Your task to perform on an android device: Open the stopwatch Image 0: 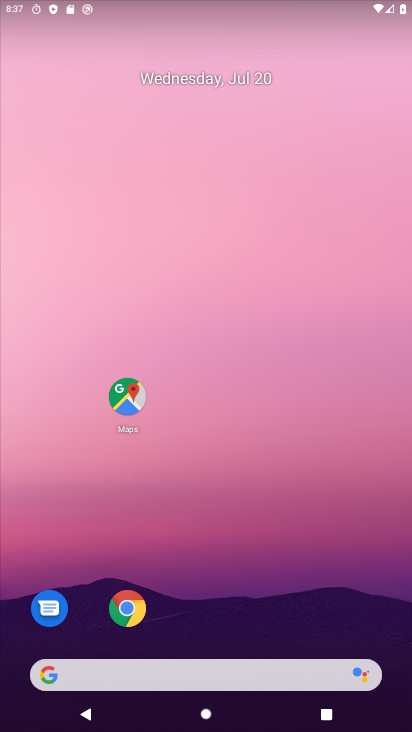
Step 0: drag from (254, 449) to (264, 75)
Your task to perform on an android device: Open the stopwatch Image 1: 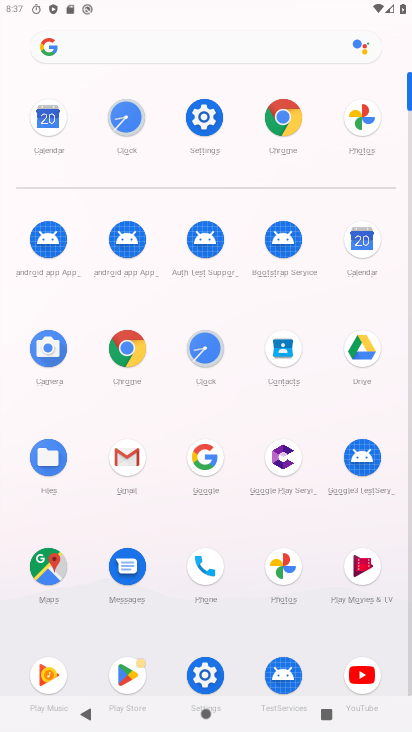
Step 1: click (209, 362)
Your task to perform on an android device: Open the stopwatch Image 2: 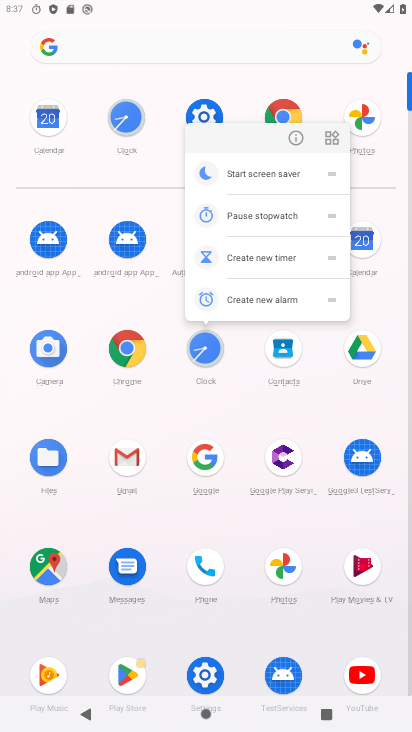
Step 2: click (209, 361)
Your task to perform on an android device: Open the stopwatch Image 3: 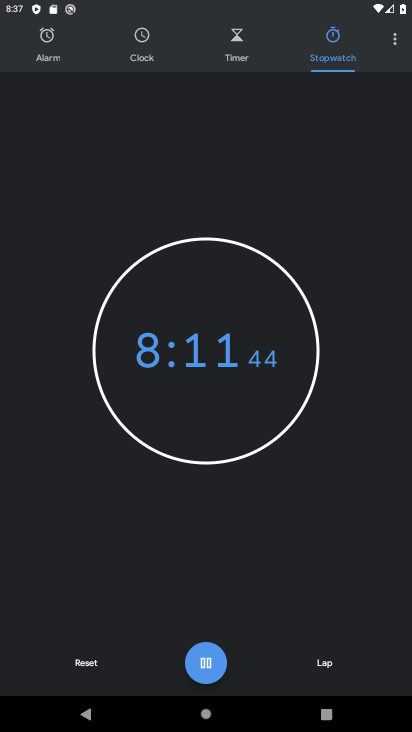
Step 3: click (214, 667)
Your task to perform on an android device: Open the stopwatch Image 4: 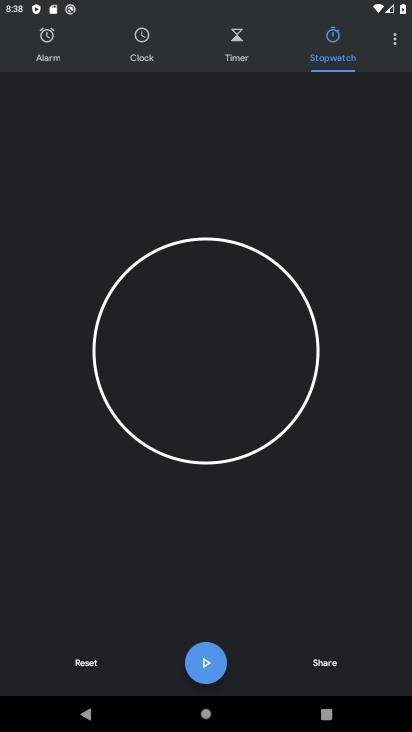
Step 4: click (79, 666)
Your task to perform on an android device: Open the stopwatch Image 5: 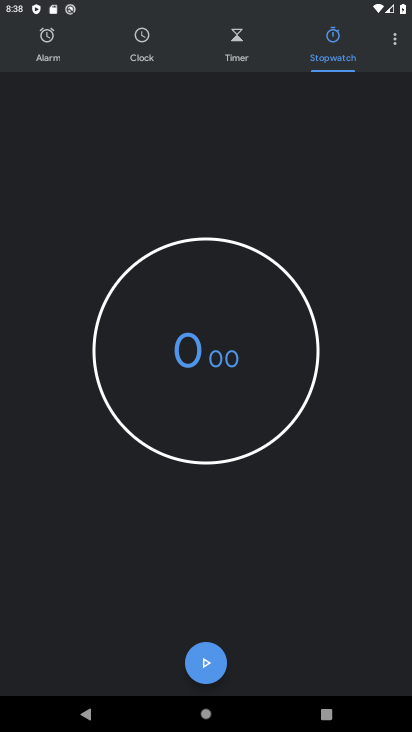
Step 5: click (215, 659)
Your task to perform on an android device: Open the stopwatch Image 6: 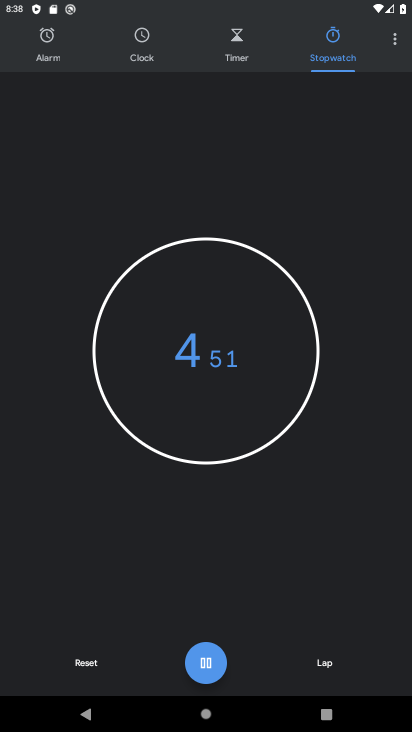
Step 6: task complete